Your task to perform on an android device: Open calendar and show me the fourth week of next month Image 0: 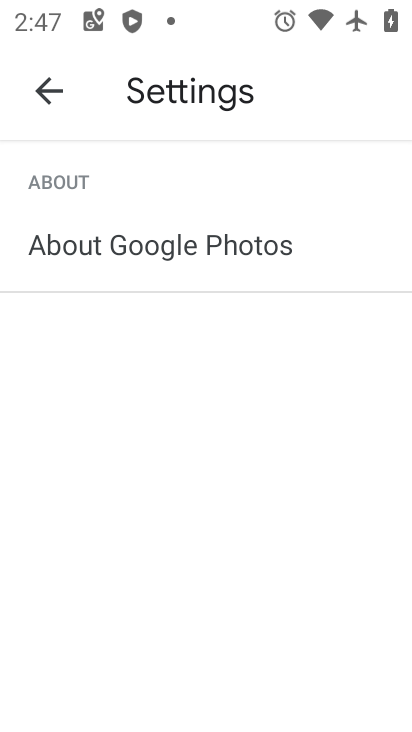
Step 0: press home button
Your task to perform on an android device: Open calendar and show me the fourth week of next month Image 1: 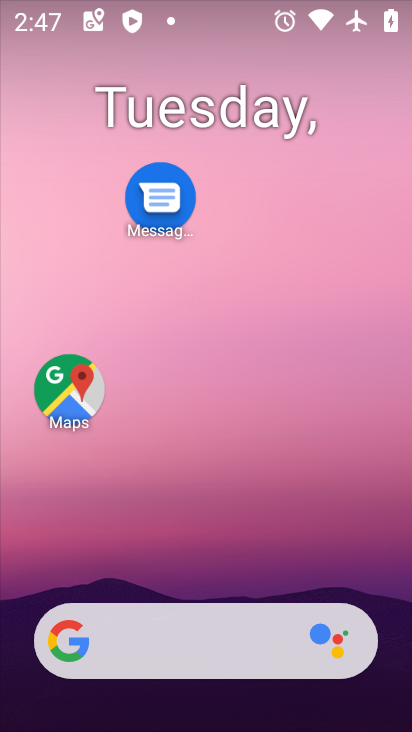
Step 1: drag from (190, 569) to (241, 298)
Your task to perform on an android device: Open calendar and show me the fourth week of next month Image 2: 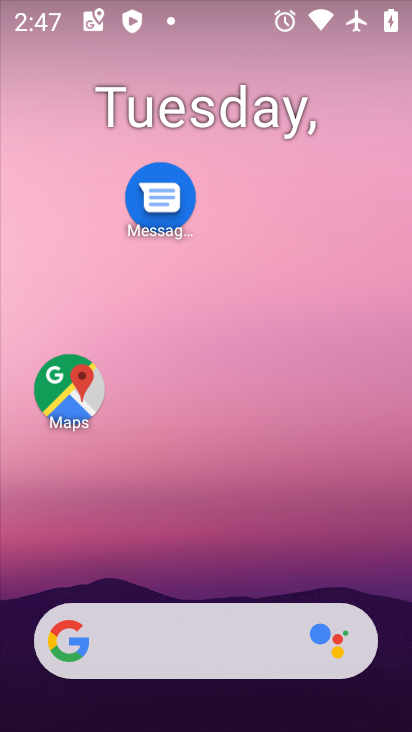
Step 2: drag from (198, 578) to (249, 202)
Your task to perform on an android device: Open calendar and show me the fourth week of next month Image 3: 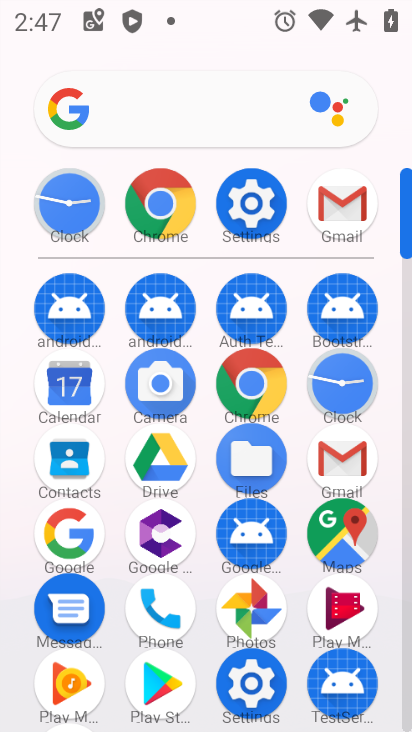
Step 3: click (77, 394)
Your task to perform on an android device: Open calendar and show me the fourth week of next month Image 4: 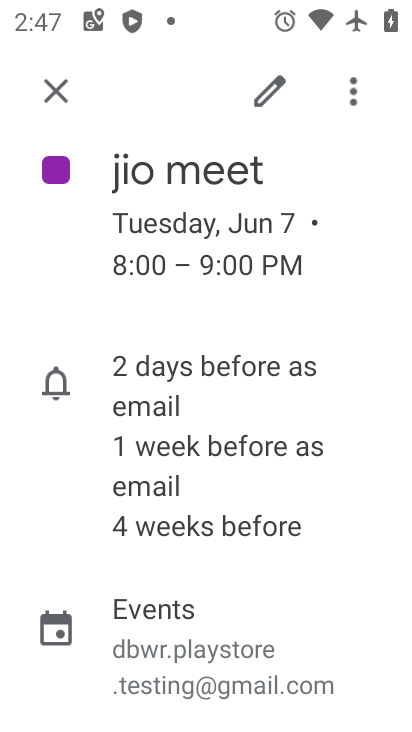
Step 4: click (55, 88)
Your task to perform on an android device: Open calendar and show me the fourth week of next month Image 5: 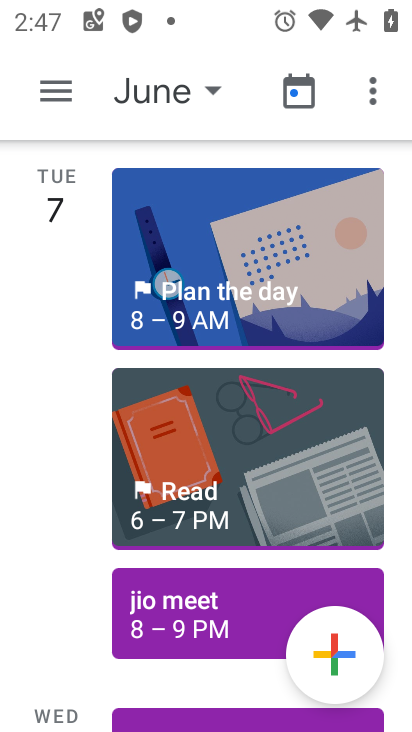
Step 5: click (186, 99)
Your task to perform on an android device: Open calendar and show me the fourth week of next month Image 6: 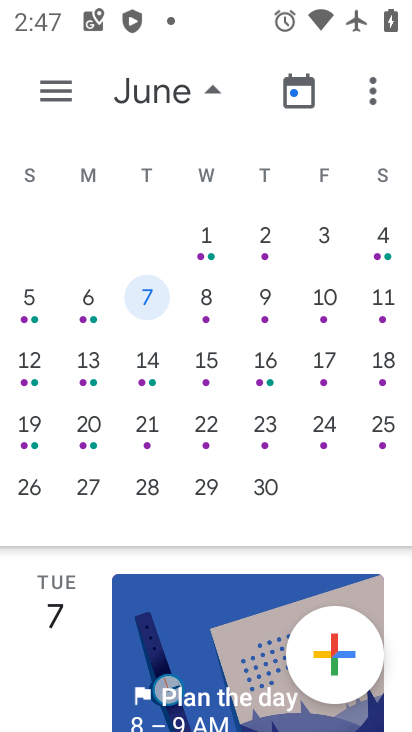
Step 6: click (31, 410)
Your task to perform on an android device: Open calendar and show me the fourth week of next month Image 7: 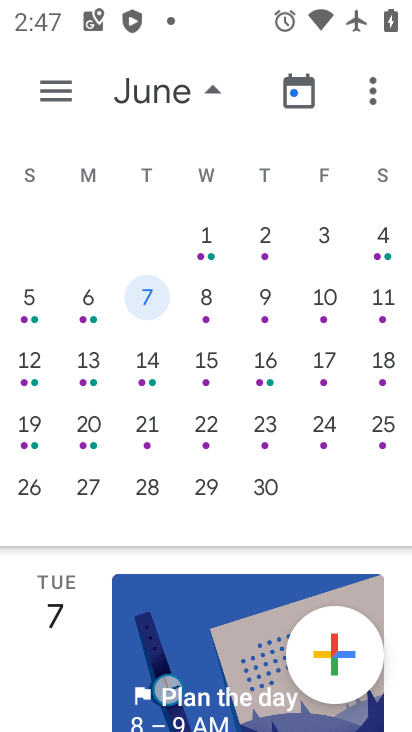
Step 7: click (31, 410)
Your task to perform on an android device: Open calendar and show me the fourth week of next month Image 8: 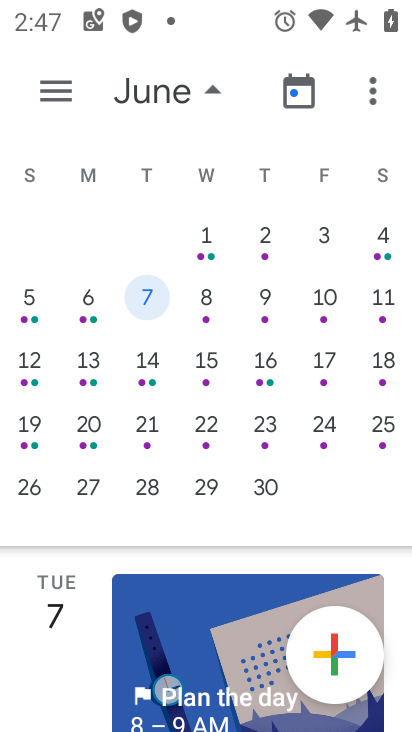
Step 8: click (29, 423)
Your task to perform on an android device: Open calendar and show me the fourth week of next month Image 9: 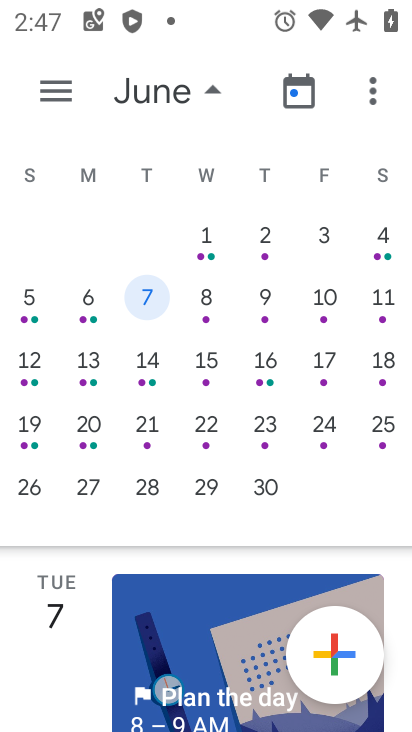
Step 9: click (29, 420)
Your task to perform on an android device: Open calendar and show me the fourth week of next month Image 10: 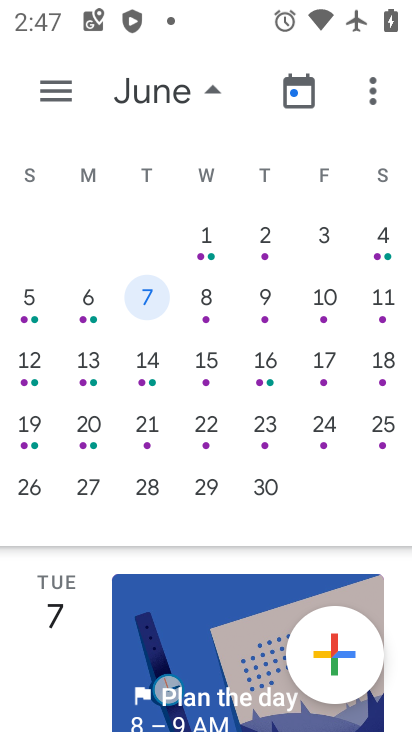
Step 10: click (44, 427)
Your task to perform on an android device: Open calendar and show me the fourth week of next month Image 11: 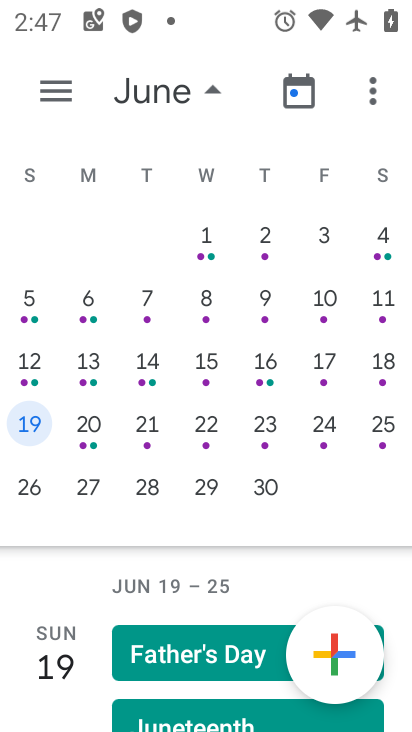
Step 11: click (39, 427)
Your task to perform on an android device: Open calendar and show me the fourth week of next month Image 12: 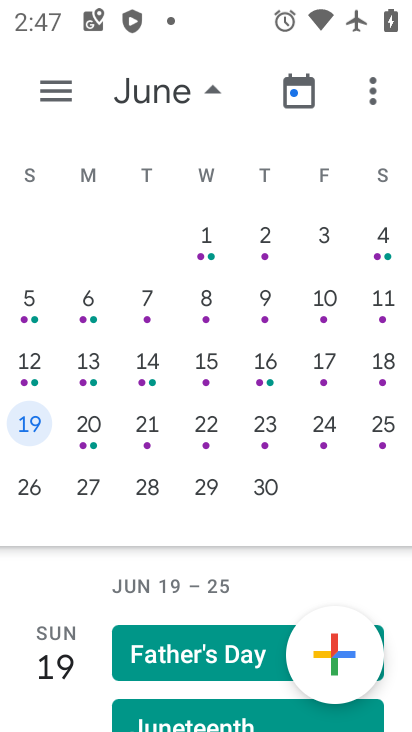
Step 12: task complete